Your task to perform on an android device: see creations saved in the google photos Image 0: 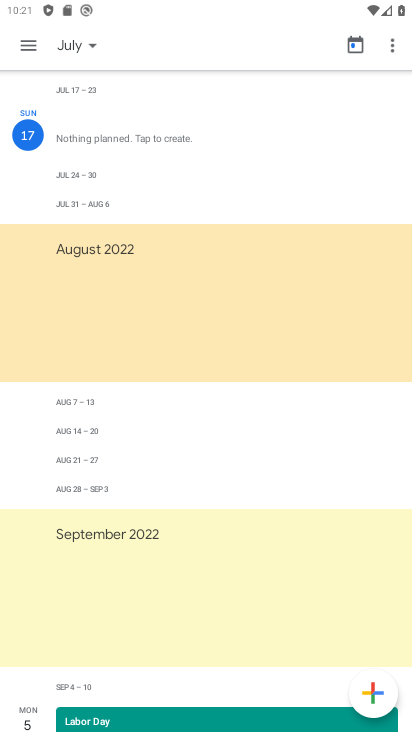
Step 0: press home button
Your task to perform on an android device: see creations saved in the google photos Image 1: 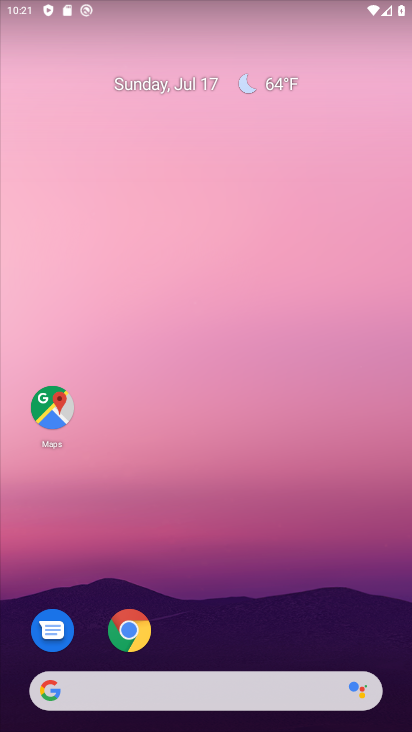
Step 1: drag from (387, 659) to (346, 103)
Your task to perform on an android device: see creations saved in the google photos Image 2: 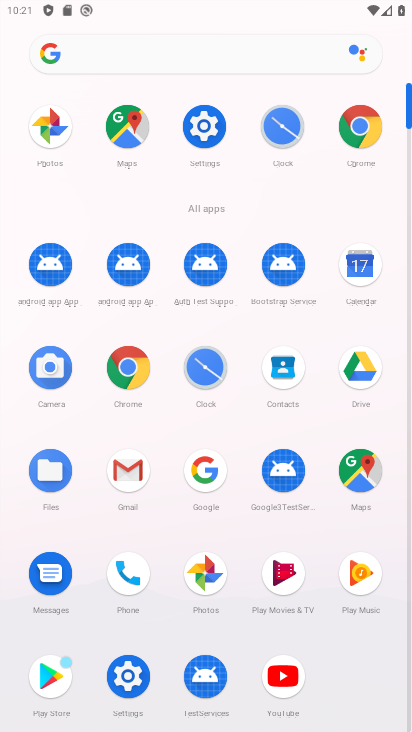
Step 2: click (202, 572)
Your task to perform on an android device: see creations saved in the google photos Image 3: 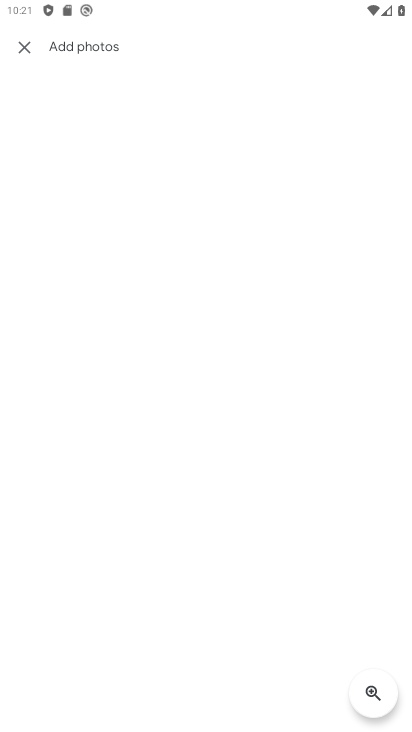
Step 3: press back button
Your task to perform on an android device: see creations saved in the google photos Image 4: 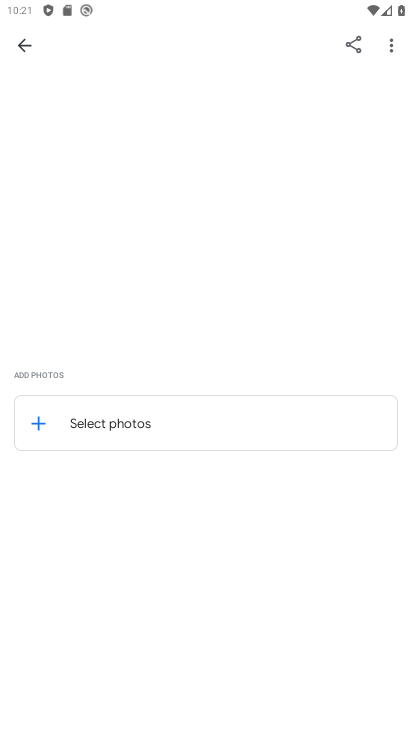
Step 4: press back button
Your task to perform on an android device: see creations saved in the google photos Image 5: 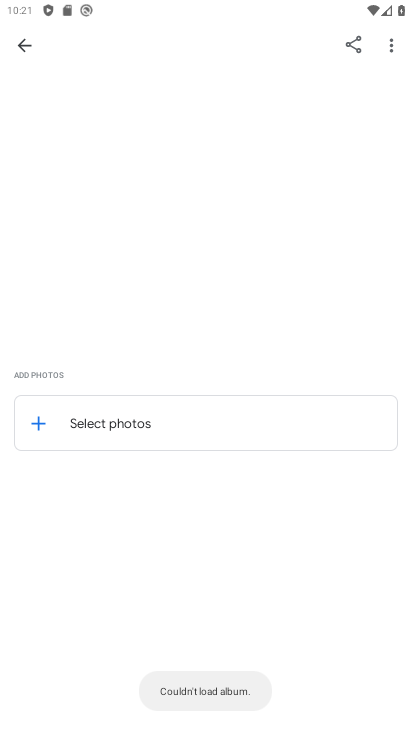
Step 5: press back button
Your task to perform on an android device: see creations saved in the google photos Image 6: 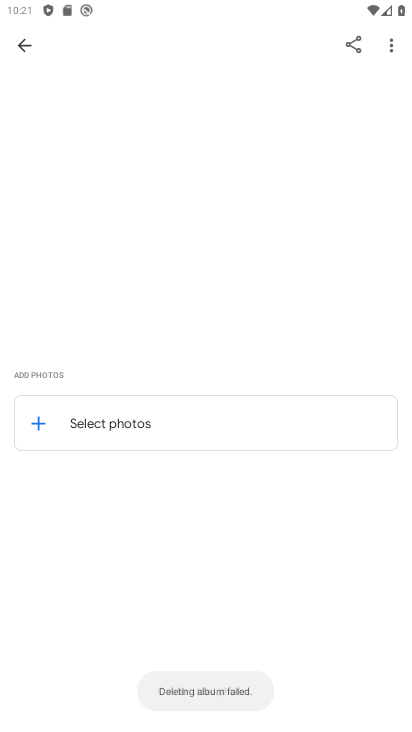
Step 6: press back button
Your task to perform on an android device: see creations saved in the google photos Image 7: 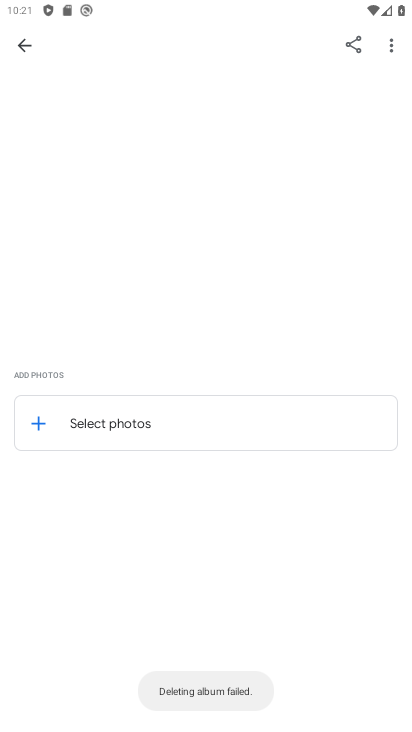
Step 7: click (24, 42)
Your task to perform on an android device: see creations saved in the google photos Image 8: 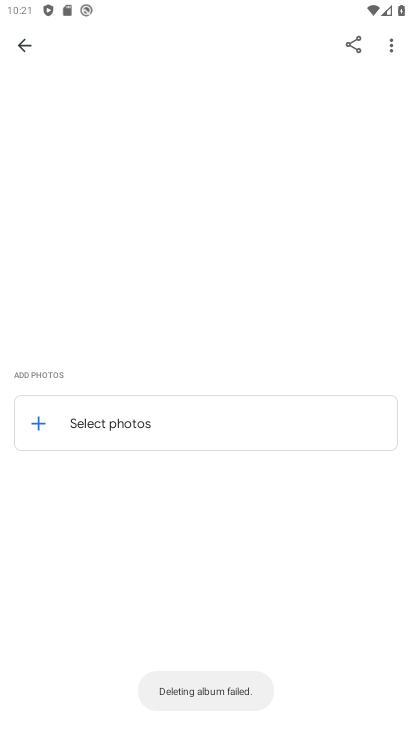
Step 8: click (24, 42)
Your task to perform on an android device: see creations saved in the google photos Image 9: 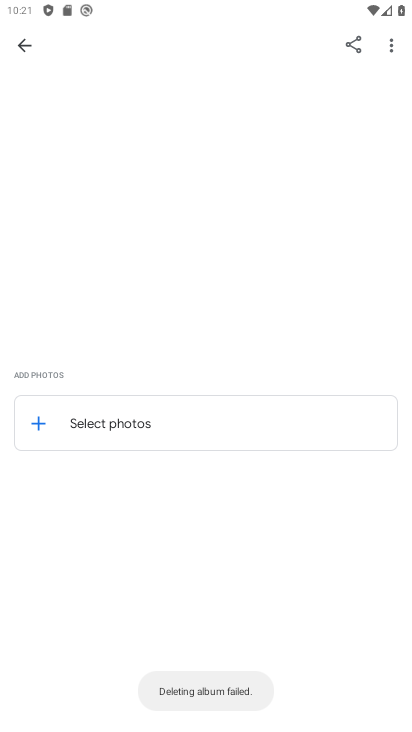
Step 9: press home button
Your task to perform on an android device: see creations saved in the google photos Image 10: 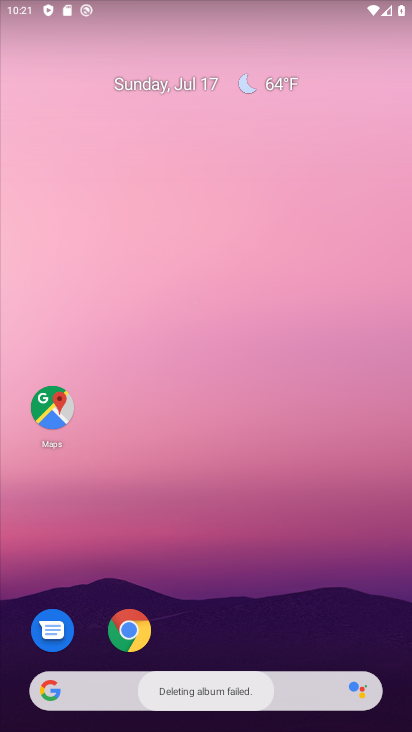
Step 10: drag from (358, 615) to (308, 31)
Your task to perform on an android device: see creations saved in the google photos Image 11: 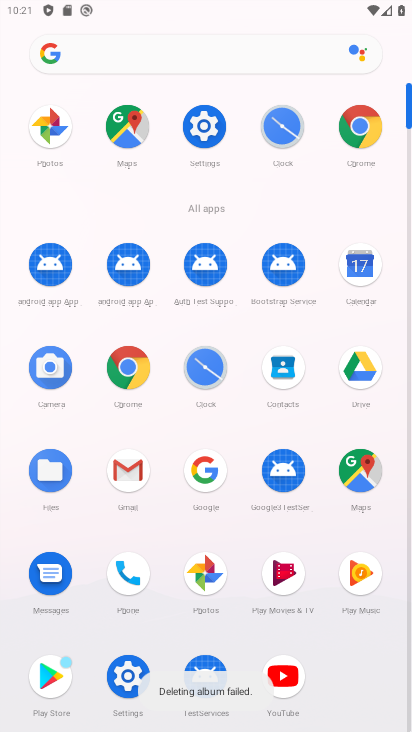
Step 11: click (205, 575)
Your task to perform on an android device: see creations saved in the google photos Image 12: 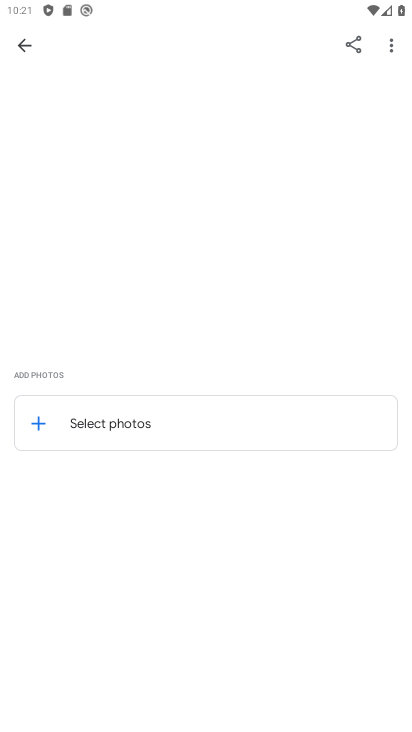
Step 12: task complete